Your task to perform on an android device: create a new album in the google photos Image 0: 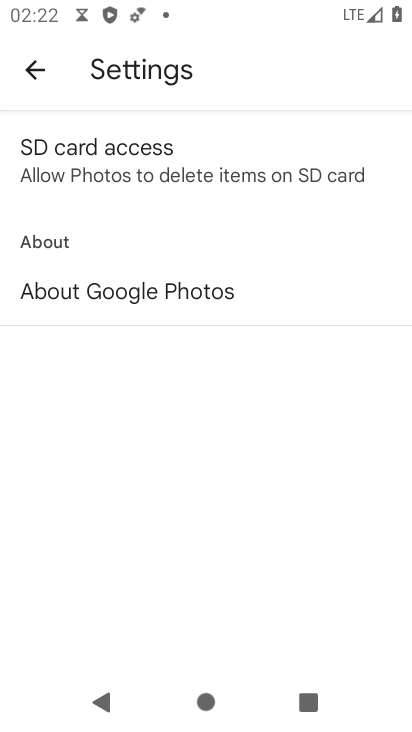
Step 0: press home button
Your task to perform on an android device: create a new album in the google photos Image 1: 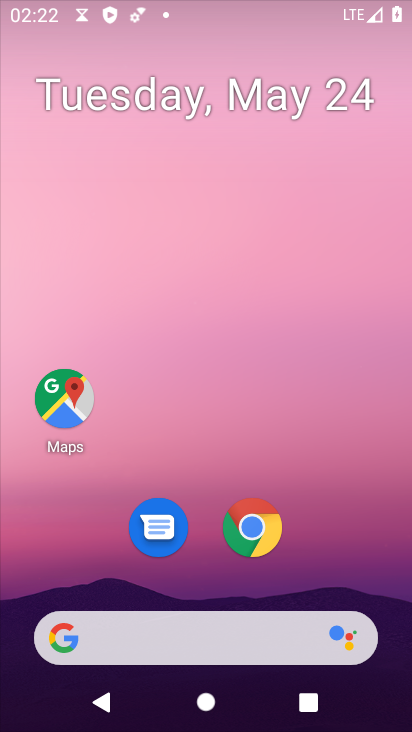
Step 1: drag from (187, 648) to (325, 200)
Your task to perform on an android device: create a new album in the google photos Image 2: 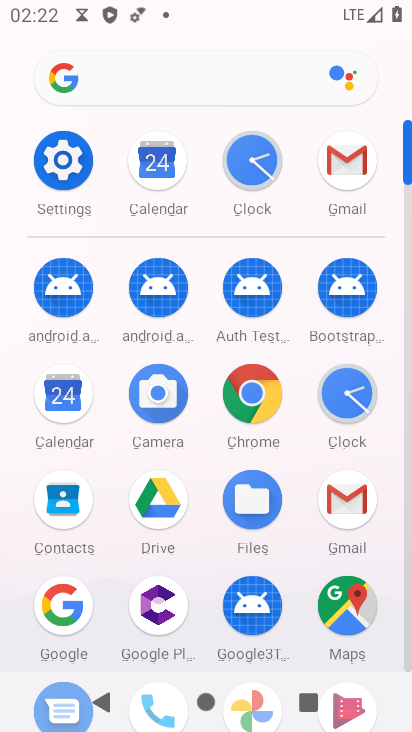
Step 2: drag from (272, 662) to (347, 430)
Your task to perform on an android device: create a new album in the google photos Image 3: 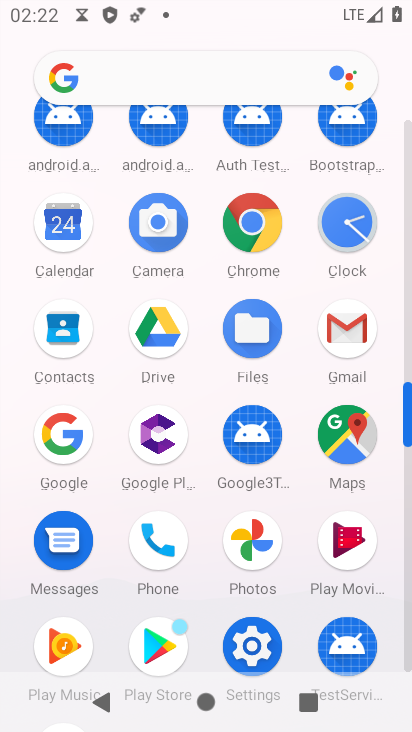
Step 3: click (263, 529)
Your task to perform on an android device: create a new album in the google photos Image 4: 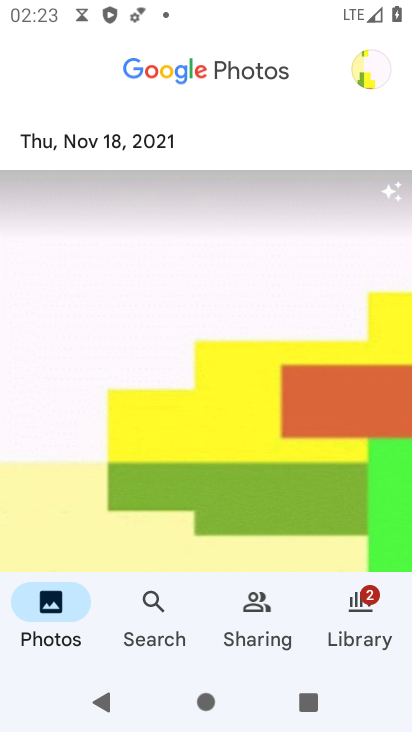
Step 4: click (336, 630)
Your task to perform on an android device: create a new album in the google photos Image 5: 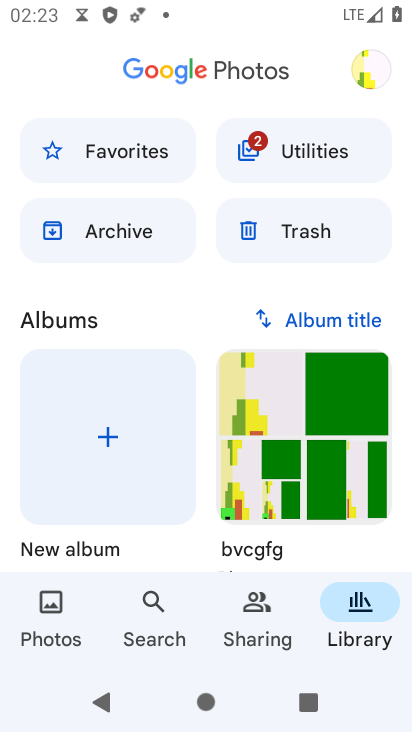
Step 5: click (105, 430)
Your task to perform on an android device: create a new album in the google photos Image 6: 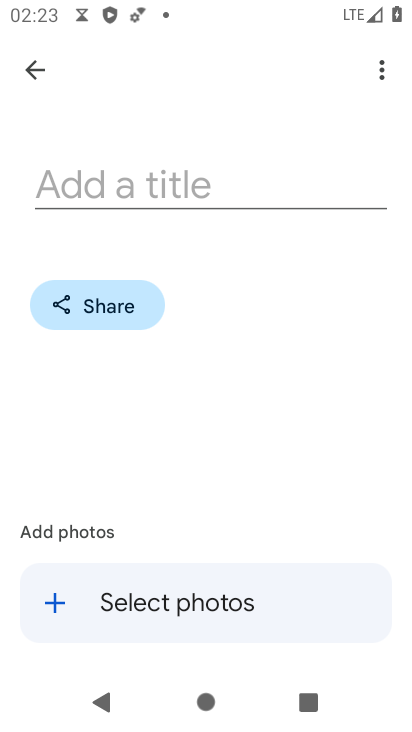
Step 6: click (177, 589)
Your task to perform on an android device: create a new album in the google photos Image 7: 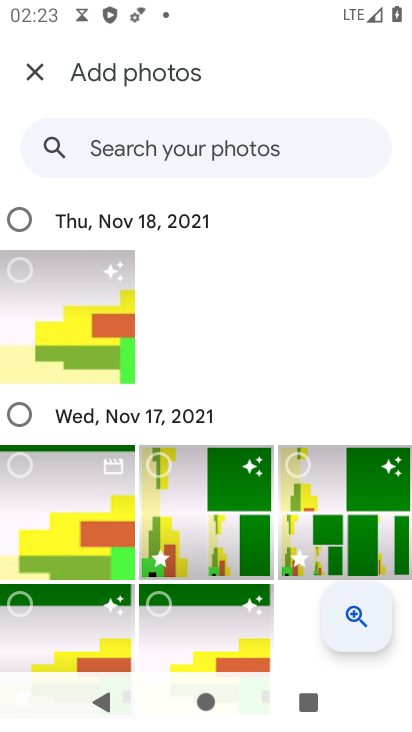
Step 7: click (50, 320)
Your task to perform on an android device: create a new album in the google photos Image 8: 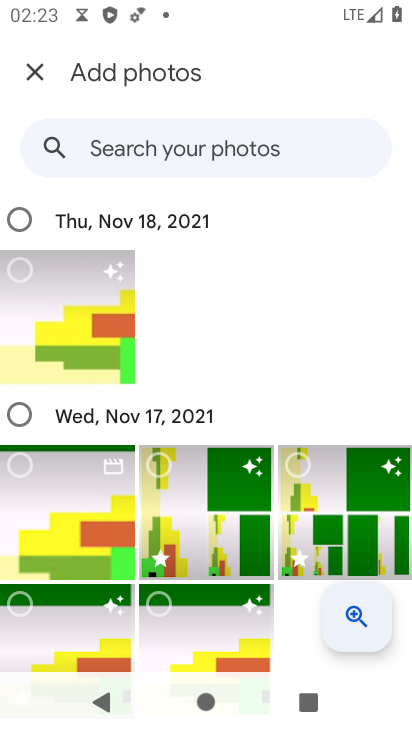
Step 8: click (62, 455)
Your task to perform on an android device: create a new album in the google photos Image 9: 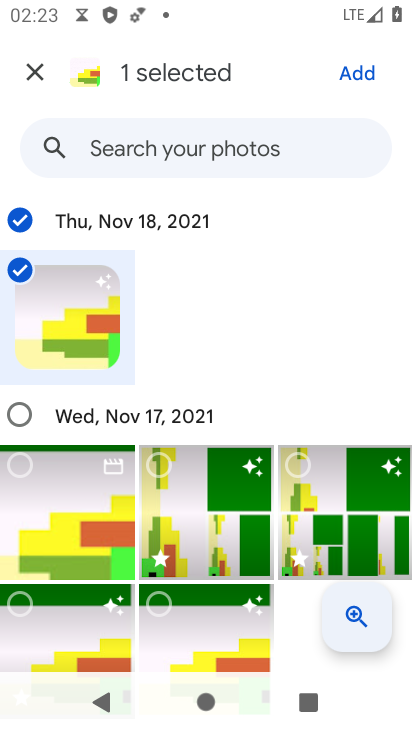
Step 9: click (173, 498)
Your task to perform on an android device: create a new album in the google photos Image 10: 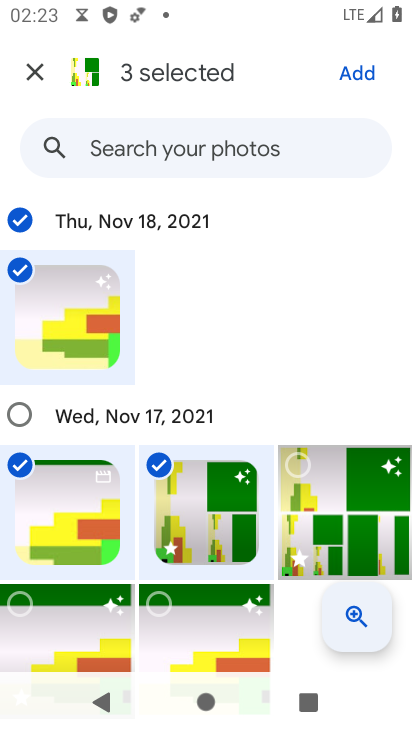
Step 10: click (367, 73)
Your task to perform on an android device: create a new album in the google photos Image 11: 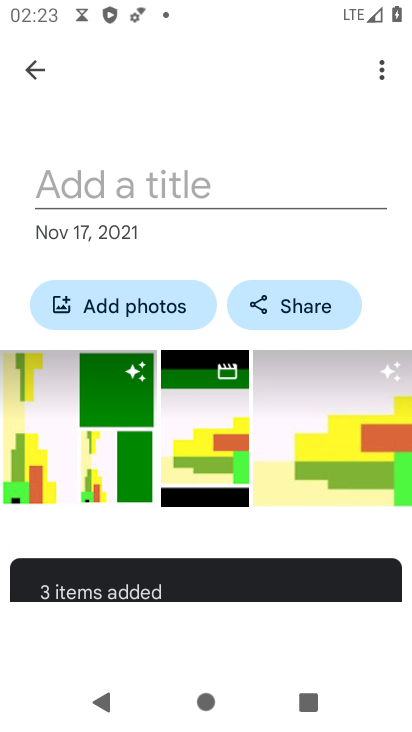
Step 11: task complete